Your task to perform on an android device: Search for "usb-a to usb-b" on bestbuy.com, select the first entry, add it to the cart, then select checkout. Image 0: 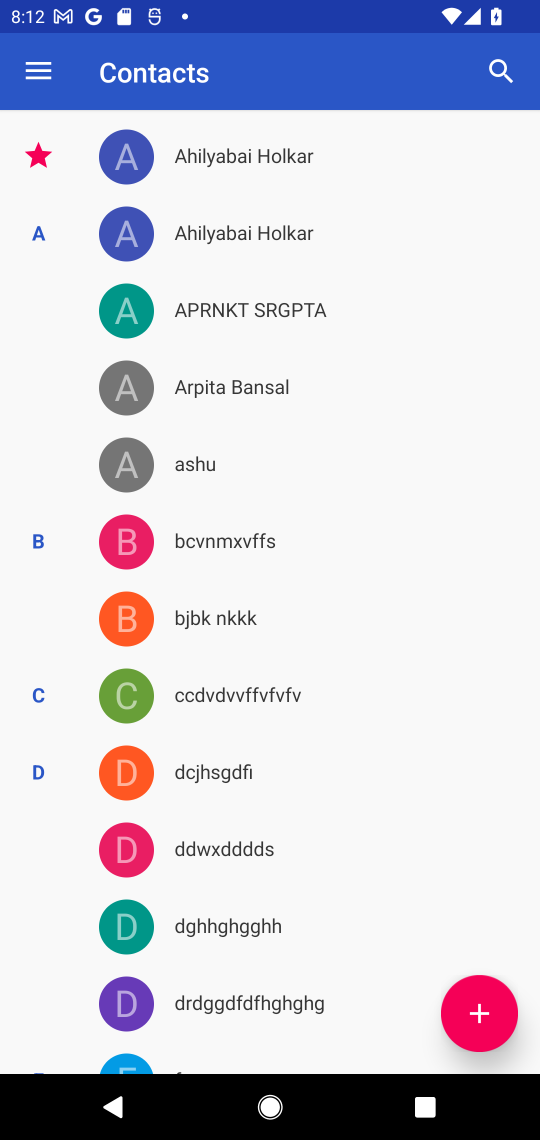
Step 0: press home button
Your task to perform on an android device: Search for "usb-a to usb-b" on bestbuy.com, select the first entry, add it to the cart, then select checkout. Image 1: 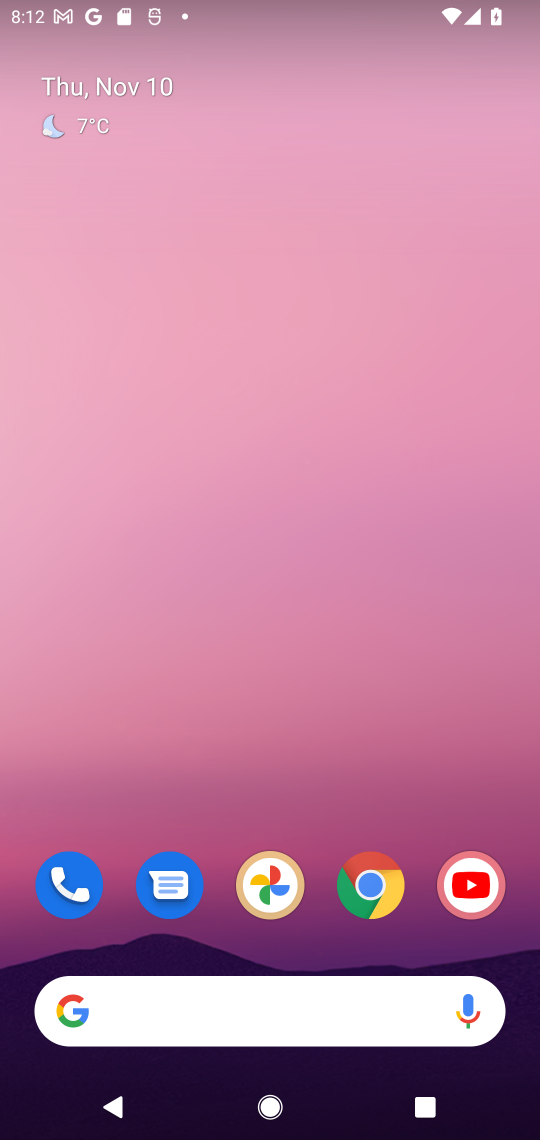
Step 1: click (384, 885)
Your task to perform on an android device: Search for "usb-a to usb-b" on bestbuy.com, select the first entry, add it to the cart, then select checkout. Image 2: 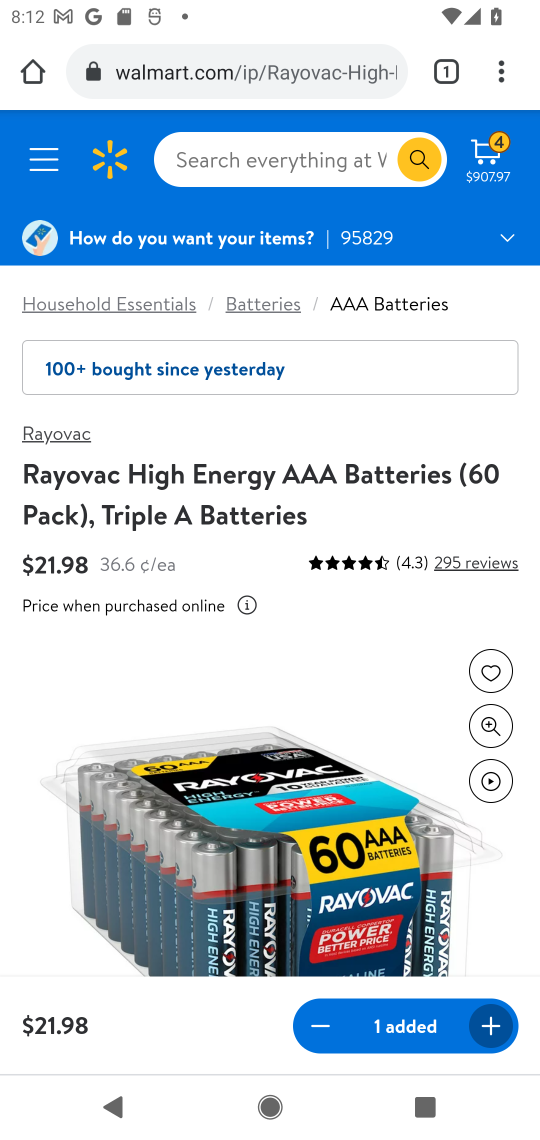
Step 2: click (284, 63)
Your task to perform on an android device: Search for "usb-a to usb-b" on bestbuy.com, select the first entry, add it to the cart, then select checkout. Image 3: 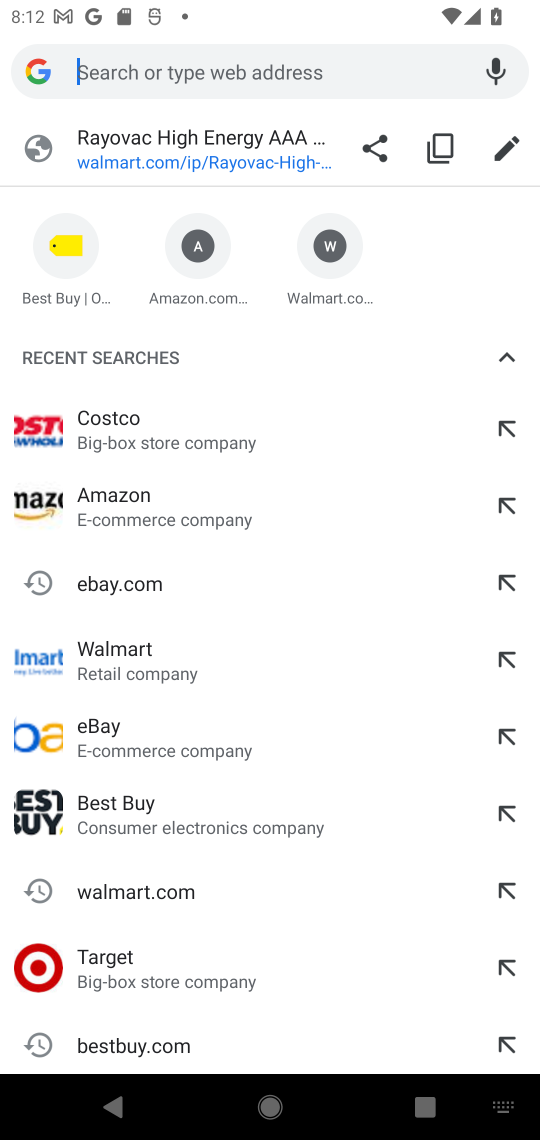
Step 3: type "bestbuy.com"
Your task to perform on an android device: Search for "usb-a to usb-b" on bestbuy.com, select the first entry, add it to the cart, then select checkout. Image 4: 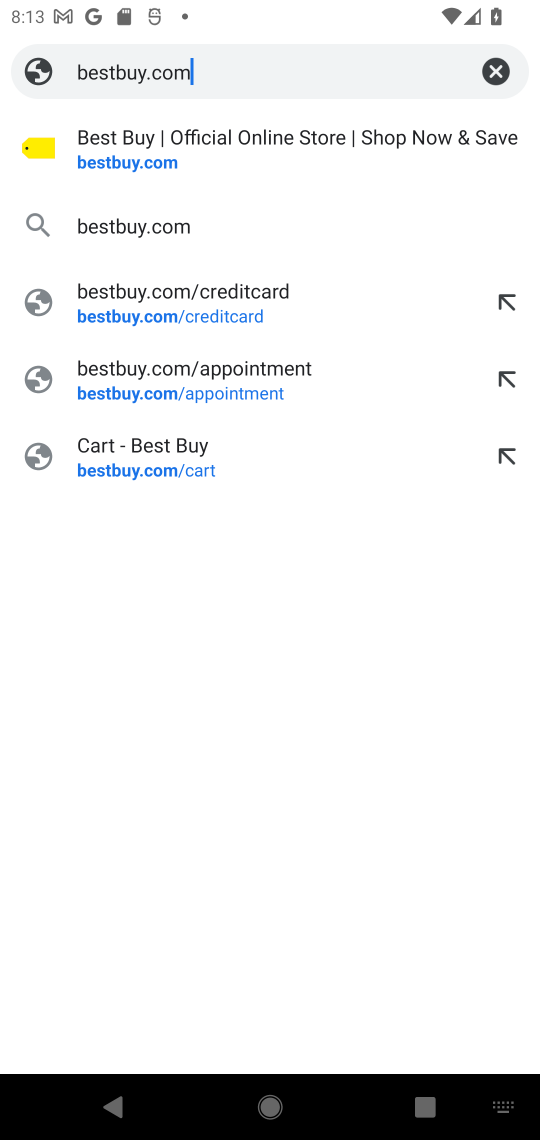
Step 4: click (177, 218)
Your task to perform on an android device: Search for "usb-a to usb-b" on bestbuy.com, select the first entry, add it to the cart, then select checkout. Image 5: 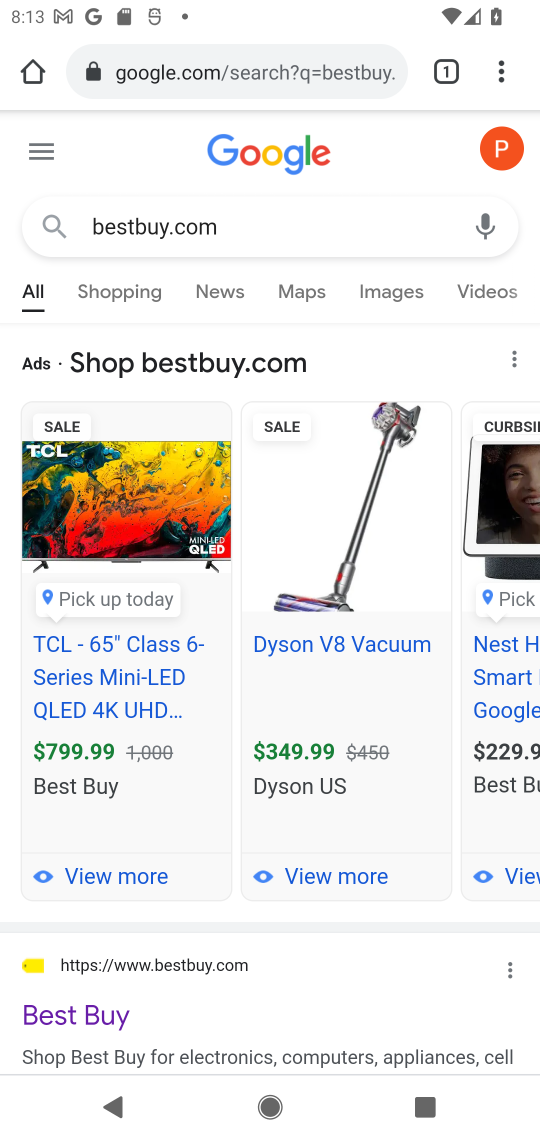
Step 5: click (226, 965)
Your task to perform on an android device: Search for "usb-a to usb-b" on bestbuy.com, select the first entry, add it to the cart, then select checkout. Image 6: 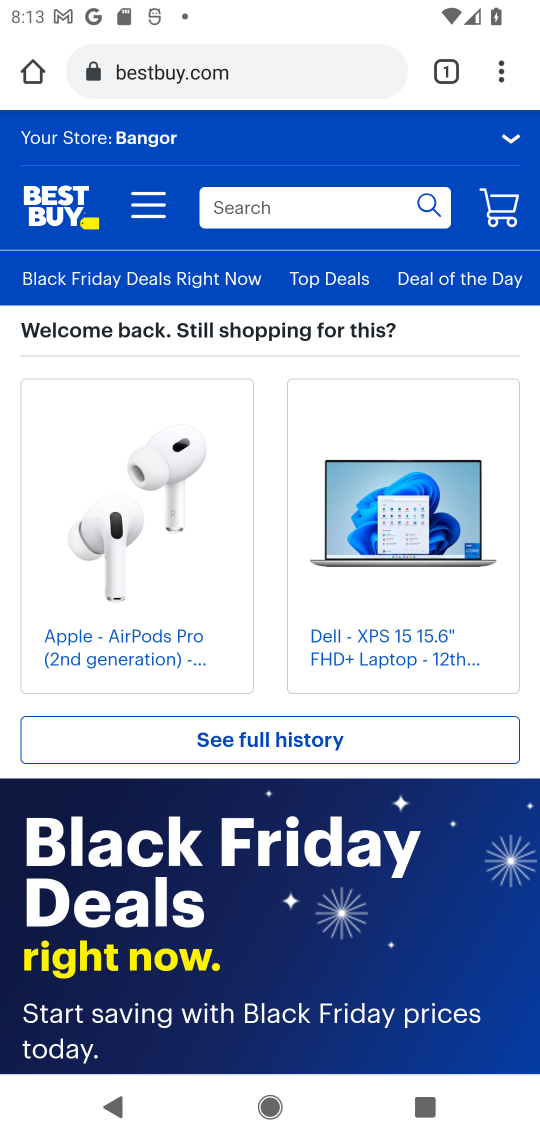
Step 6: click (324, 200)
Your task to perform on an android device: Search for "usb-a to usb-b" on bestbuy.com, select the first entry, add it to the cart, then select checkout. Image 7: 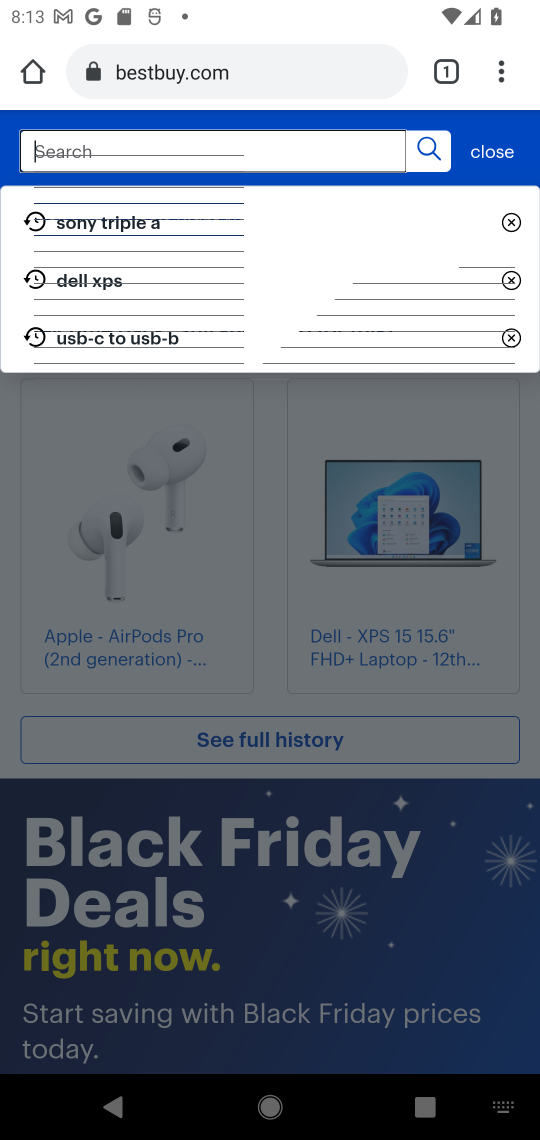
Step 7: type "usb-a to usb-b"
Your task to perform on an android device: Search for "usb-a to usb-b" on bestbuy.com, select the first entry, add it to the cart, then select checkout. Image 8: 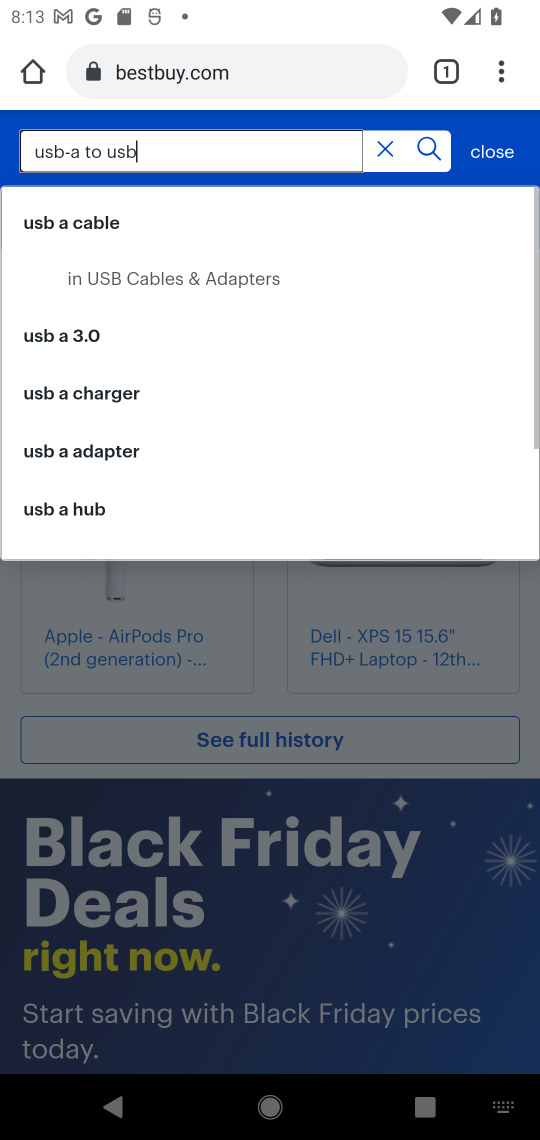
Step 8: press enter
Your task to perform on an android device: Search for "usb-a to usb-b" on bestbuy.com, select the first entry, add it to the cart, then select checkout. Image 9: 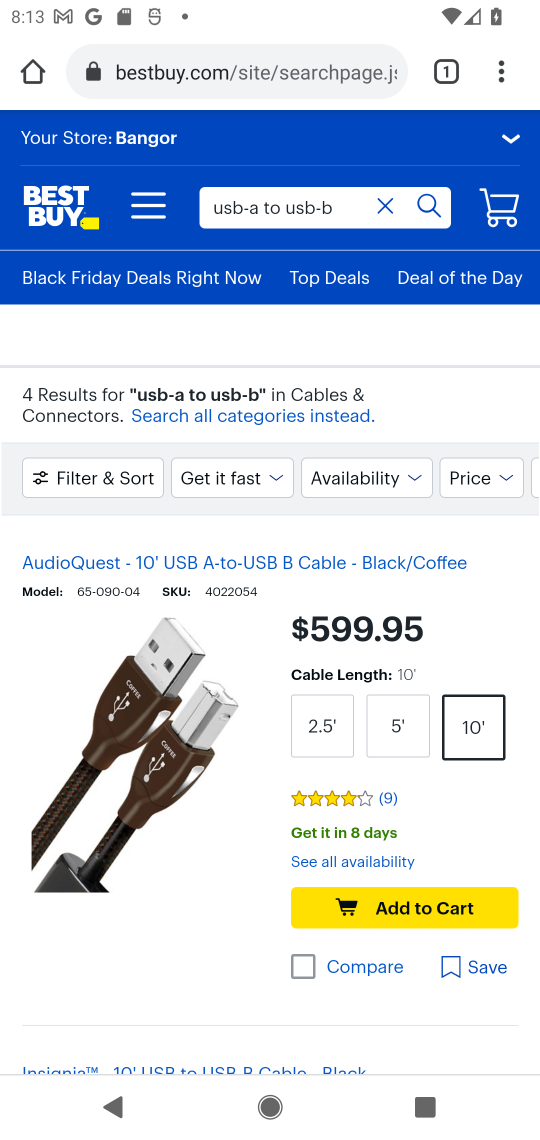
Step 9: click (165, 706)
Your task to perform on an android device: Search for "usb-a to usb-b" on bestbuy.com, select the first entry, add it to the cart, then select checkout. Image 10: 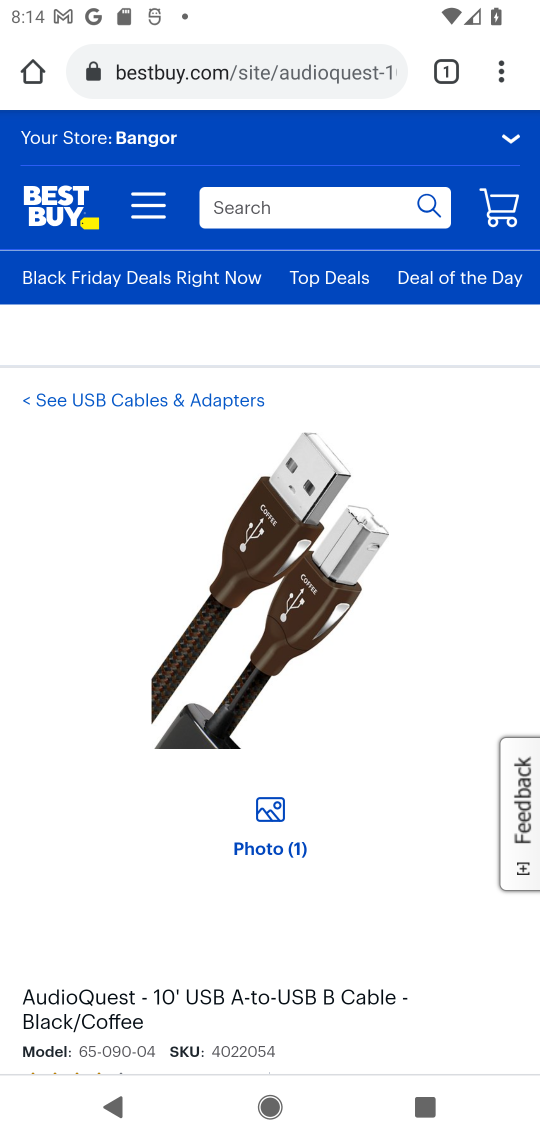
Step 10: drag from (363, 880) to (362, 593)
Your task to perform on an android device: Search for "usb-a to usb-b" on bestbuy.com, select the first entry, add it to the cart, then select checkout. Image 11: 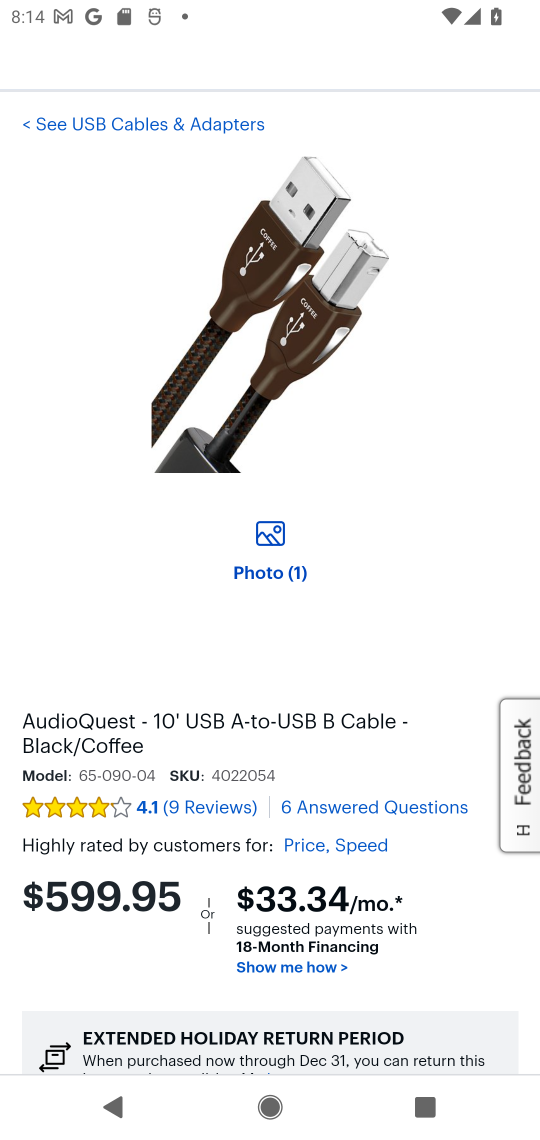
Step 11: drag from (402, 834) to (433, 350)
Your task to perform on an android device: Search for "usb-a to usb-b" on bestbuy.com, select the first entry, add it to the cart, then select checkout. Image 12: 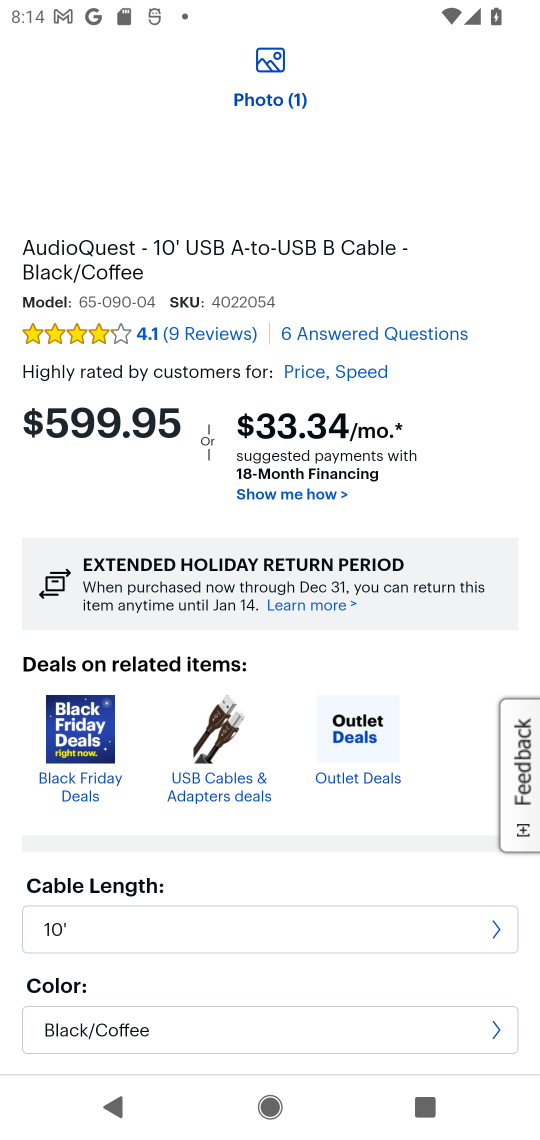
Step 12: drag from (367, 743) to (384, 394)
Your task to perform on an android device: Search for "usb-a to usb-b" on bestbuy.com, select the first entry, add it to the cart, then select checkout. Image 13: 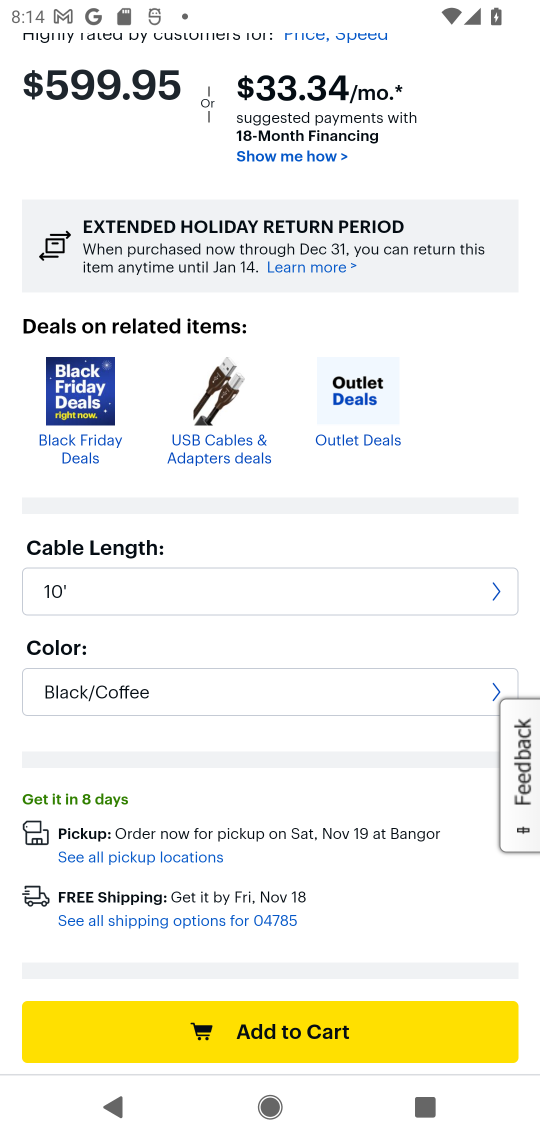
Step 13: click (323, 1026)
Your task to perform on an android device: Search for "usb-a to usb-b" on bestbuy.com, select the first entry, add it to the cart, then select checkout. Image 14: 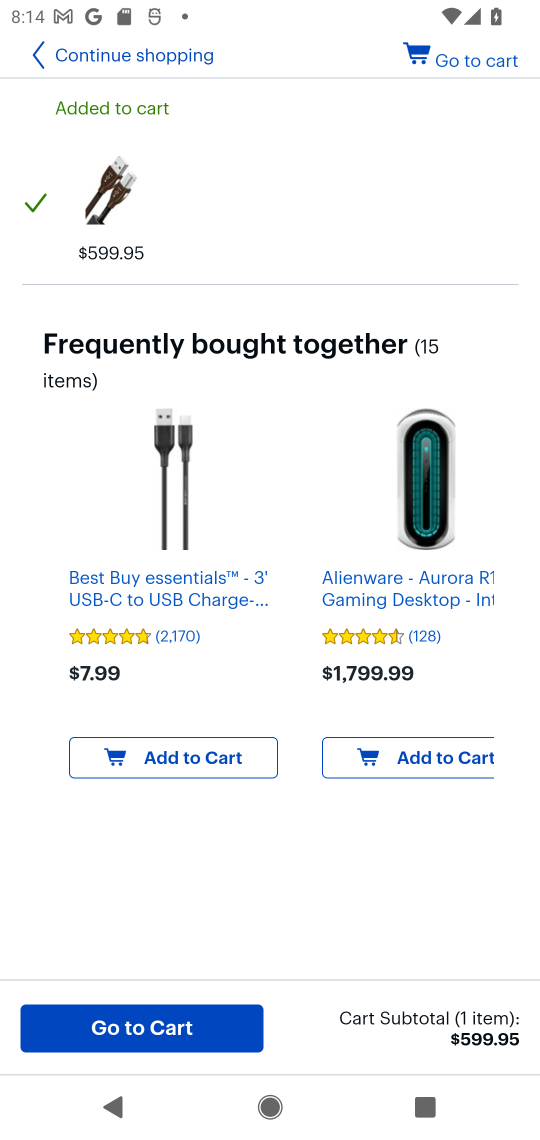
Step 14: click (175, 1025)
Your task to perform on an android device: Search for "usb-a to usb-b" on bestbuy.com, select the first entry, add it to the cart, then select checkout. Image 15: 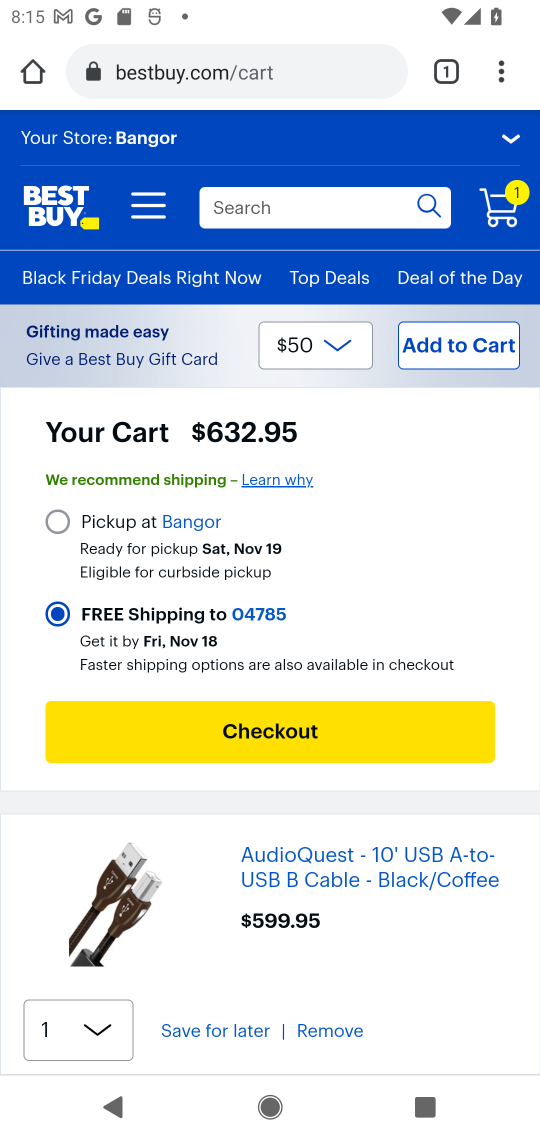
Step 15: click (292, 730)
Your task to perform on an android device: Search for "usb-a to usb-b" on bestbuy.com, select the first entry, add it to the cart, then select checkout. Image 16: 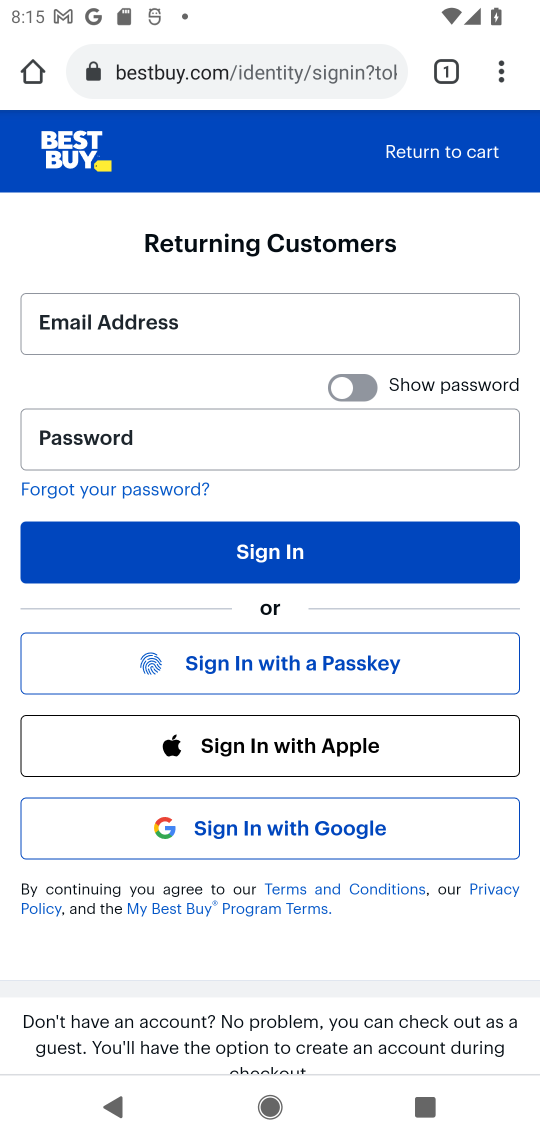
Step 16: task complete